Your task to perform on an android device: move a message to another label in the gmail app Image 0: 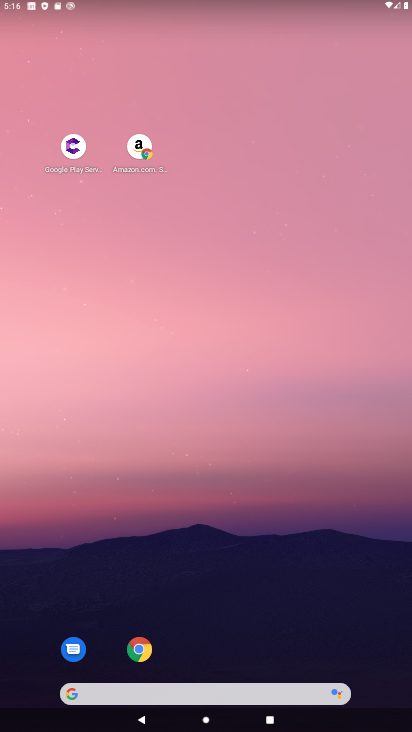
Step 0: drag from (202, 692) to (280, 178)
Your task to perform on an android device: move a message to another label in the gmail app Image 1: 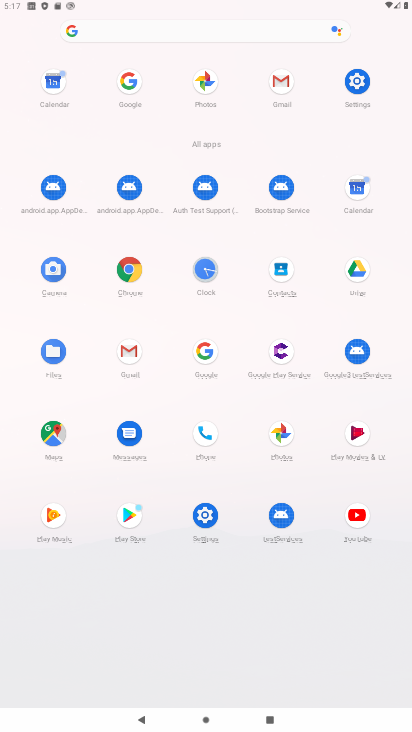
Step 1: click (127, 350)
Your task to perform on an android device: move a message to another label in the gmail app Image 2: 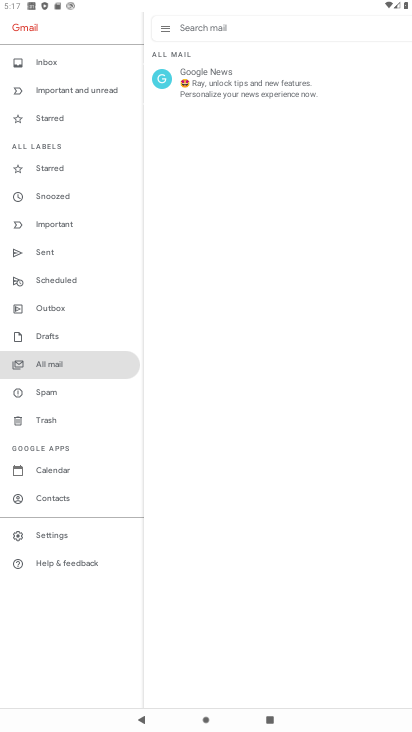
Step 2: click (237, 88)
Your task to perform on an android device: move a message to another label in the gmail app Image 3: 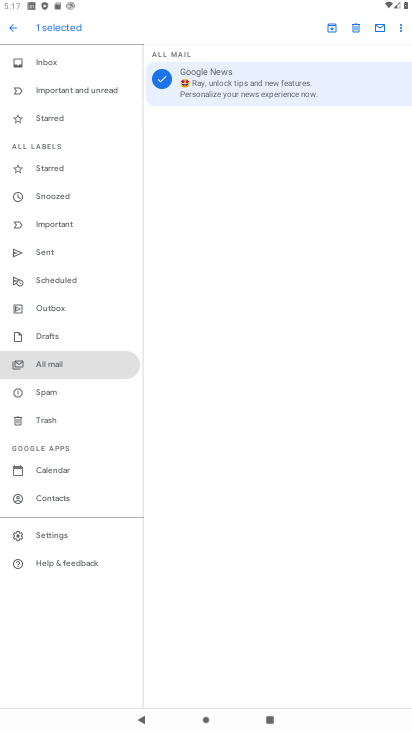
Step 3: click (399, 23)
Your task to perform on an android device: move a message to another label in the gmail app Image 4: 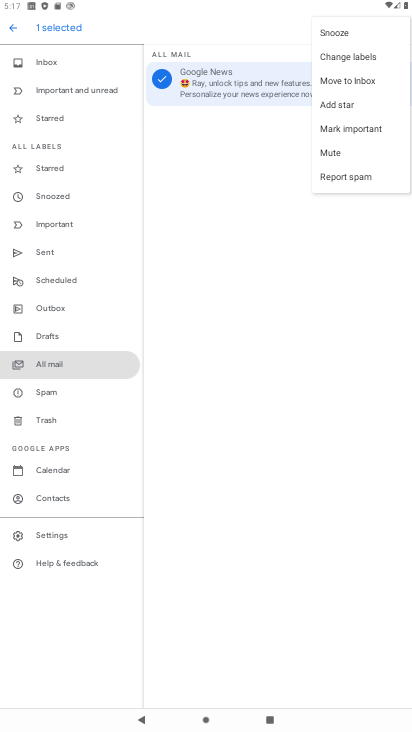
Step 4: click (375, 79)
Your task to perform on an android device: move a message to another label in the gmail app Image 5: 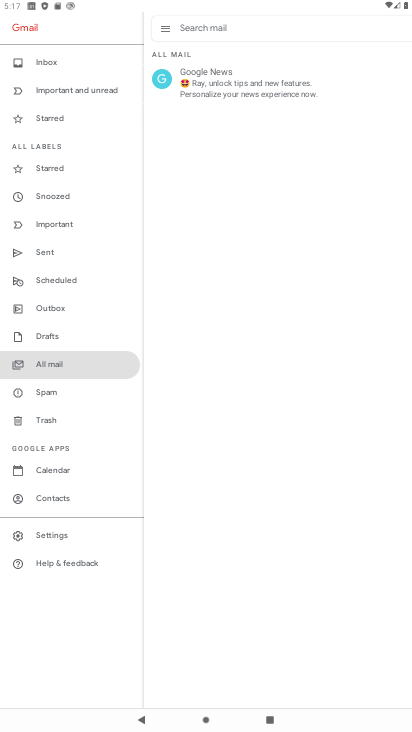
Step 5: task complete